Your task to perform on an android device: Open Google Image 0: 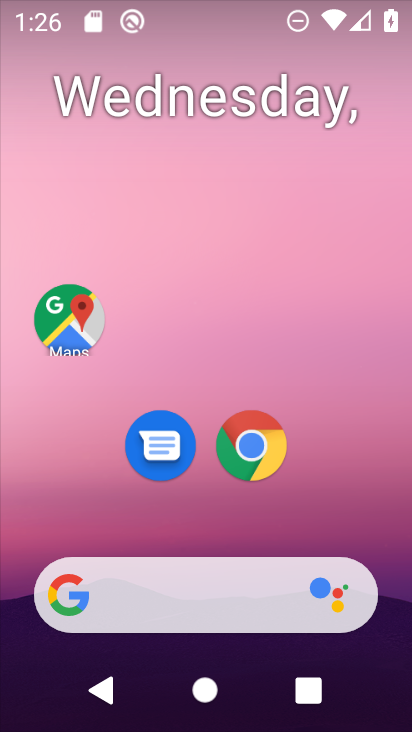
Step 0: drag from (399, 622) to (313, 190)
Your task to perform on an android device: Open Google Image 1: 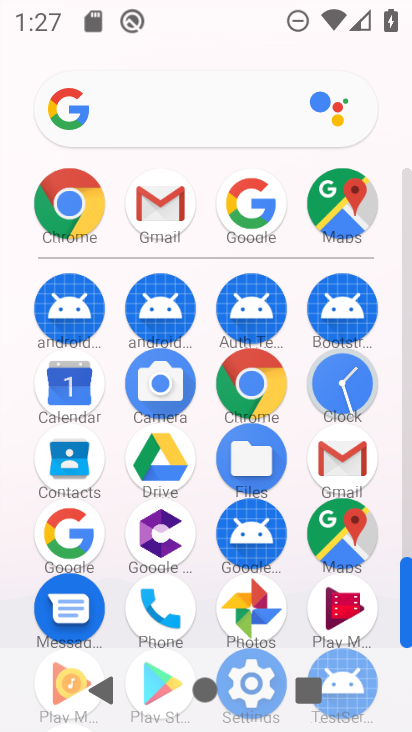
Step 1: click (62, 536)
Your task to perform on an android device: Open Google Image 2: 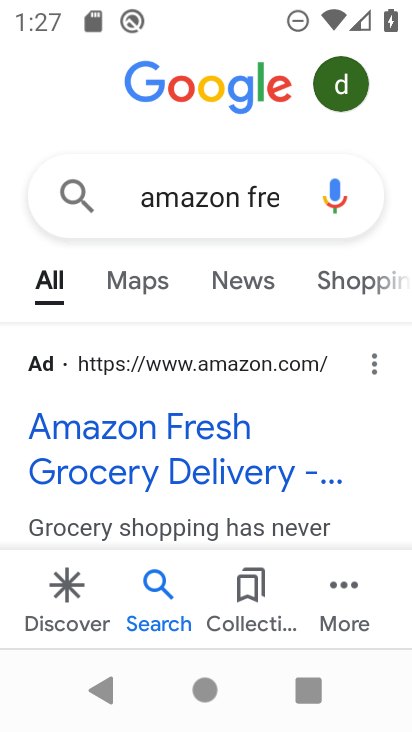
Step 2: task complete